Your task to perform on an android device: change the clock style Image 0: 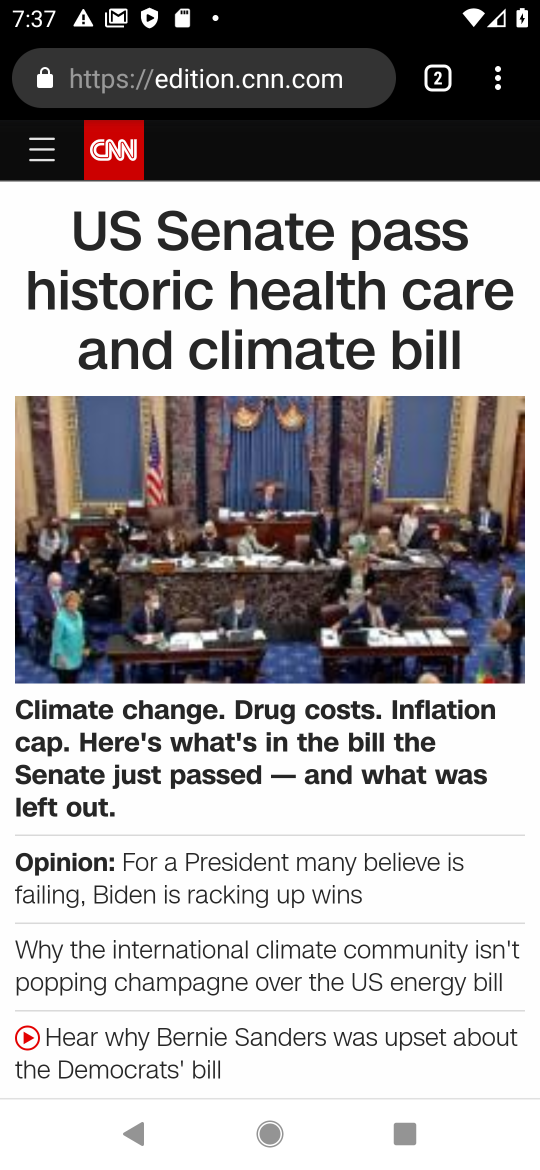
Step 0: press home button
Your task to perform on an android device: change the clock style Image 1: 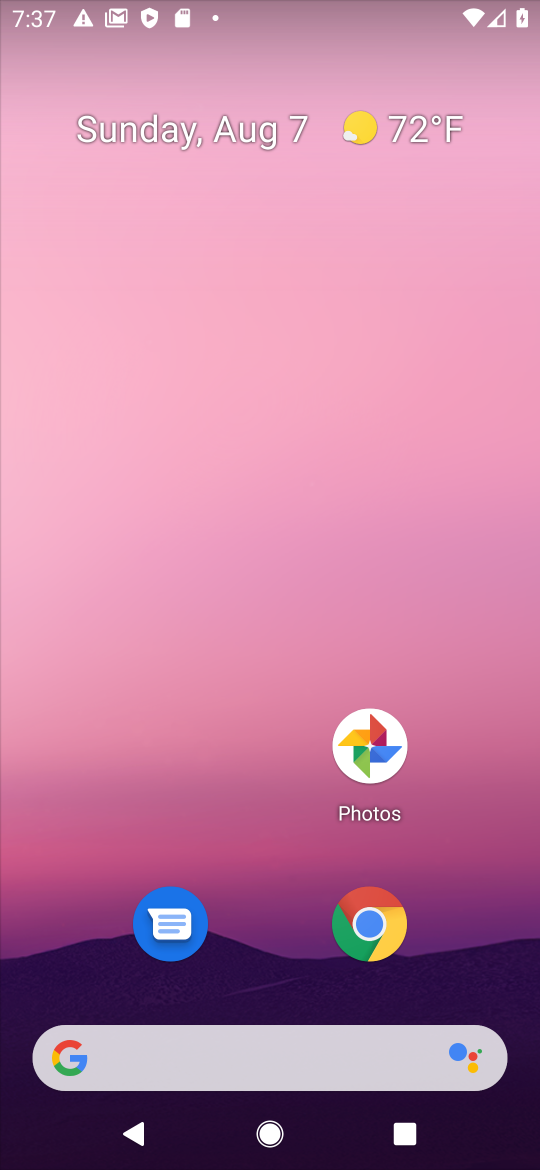
Step 1: drag from (364, 1040) to (277, 2)
Your task to perform on an android device: change the clock style Image 2: 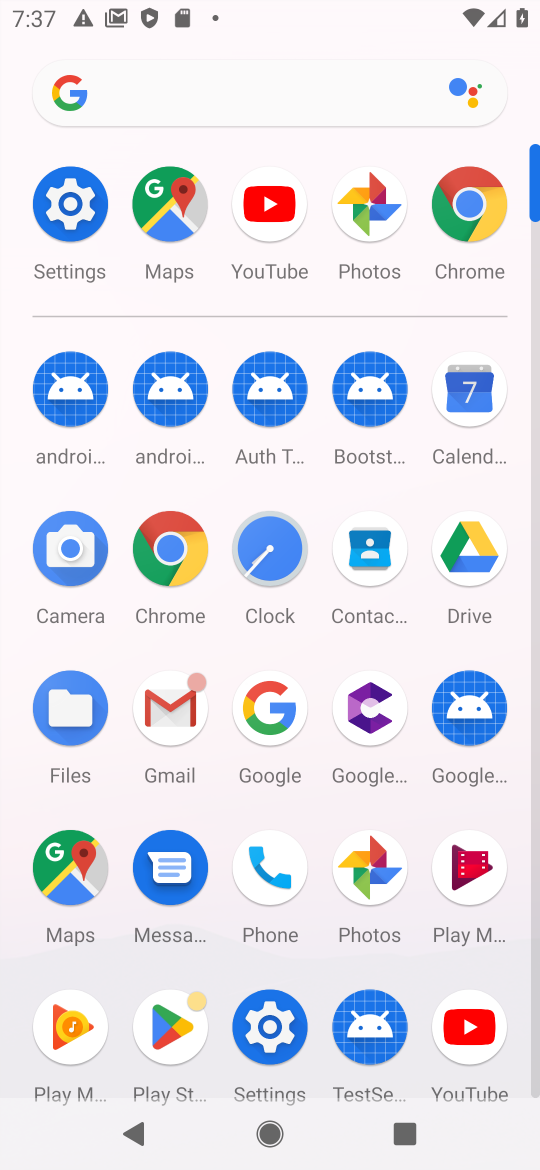
Step 2: click (281, 566)
Your task to perform on an android device: change the clock style Image 3: 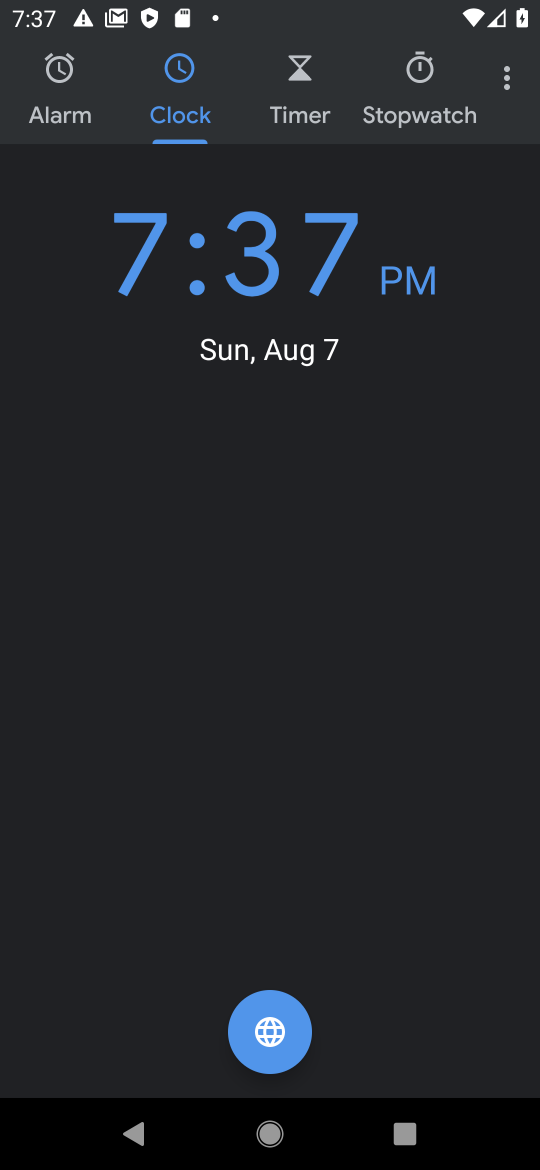
Step 3: click (504, 98)
Your task to perform on an android device: change the clock style Image 4: 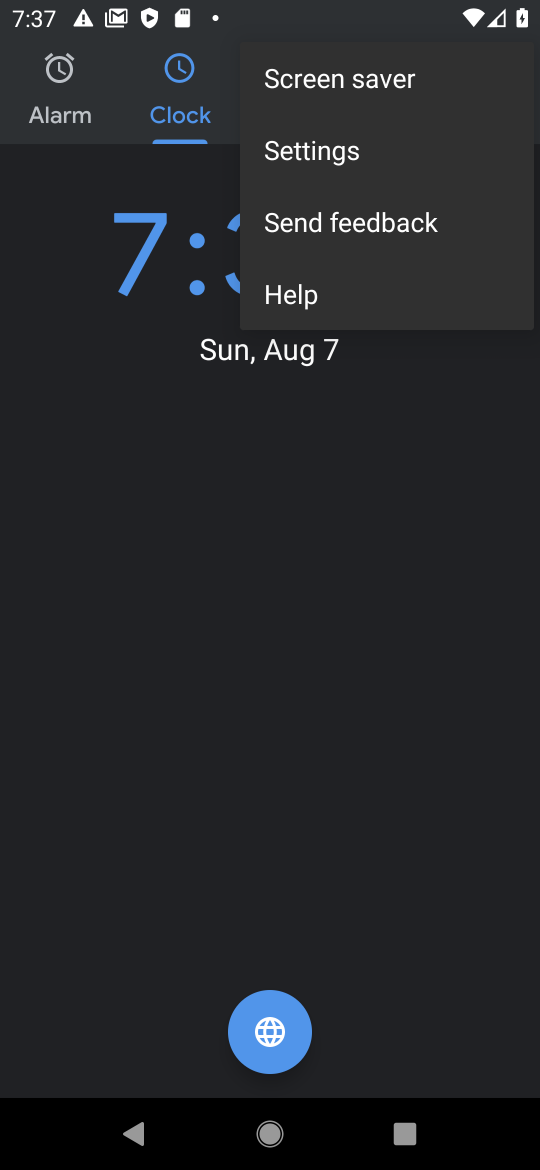
Step 4: click (345, 164)
Your task to perform on an android device: change the clock style Image 5: 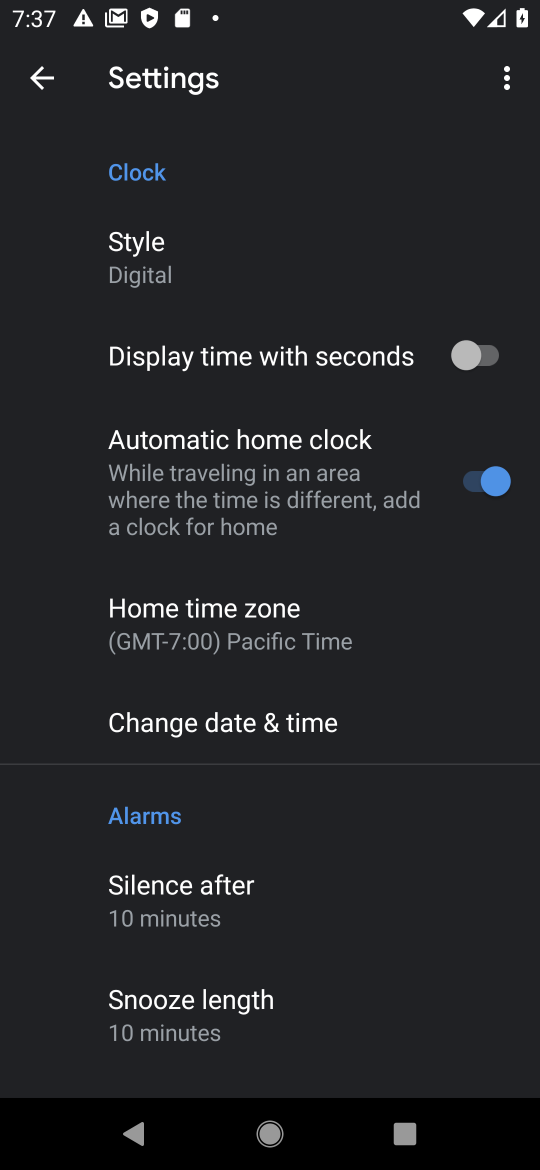
Step 5: click (188, 237)
Your task to perform on an android device: change the clock style Image 6: 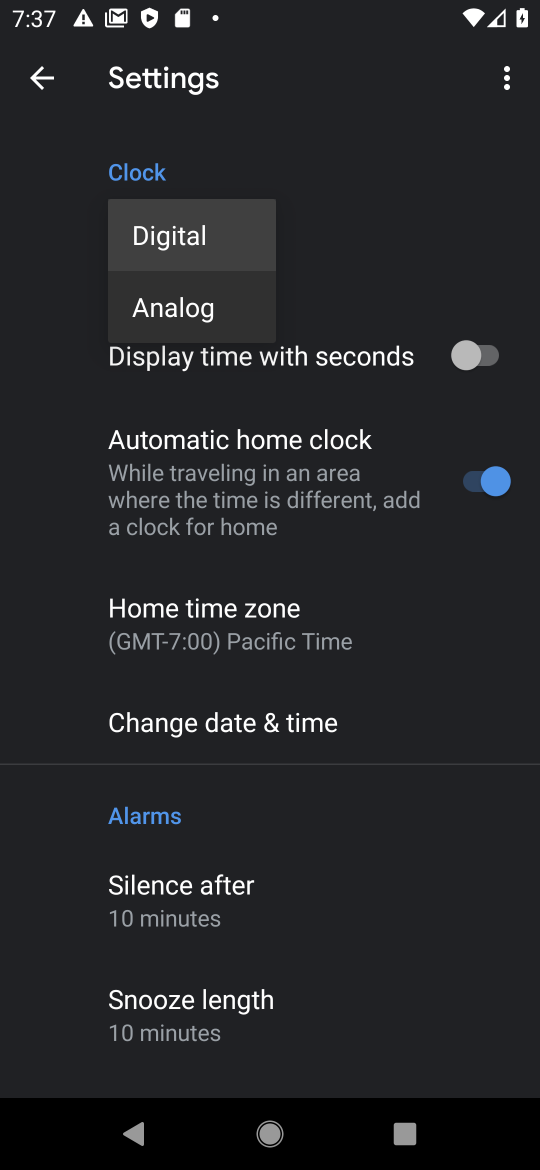
Step 6: click (197, 309)
Your task to perform on an android device: change the clock style Image 7: 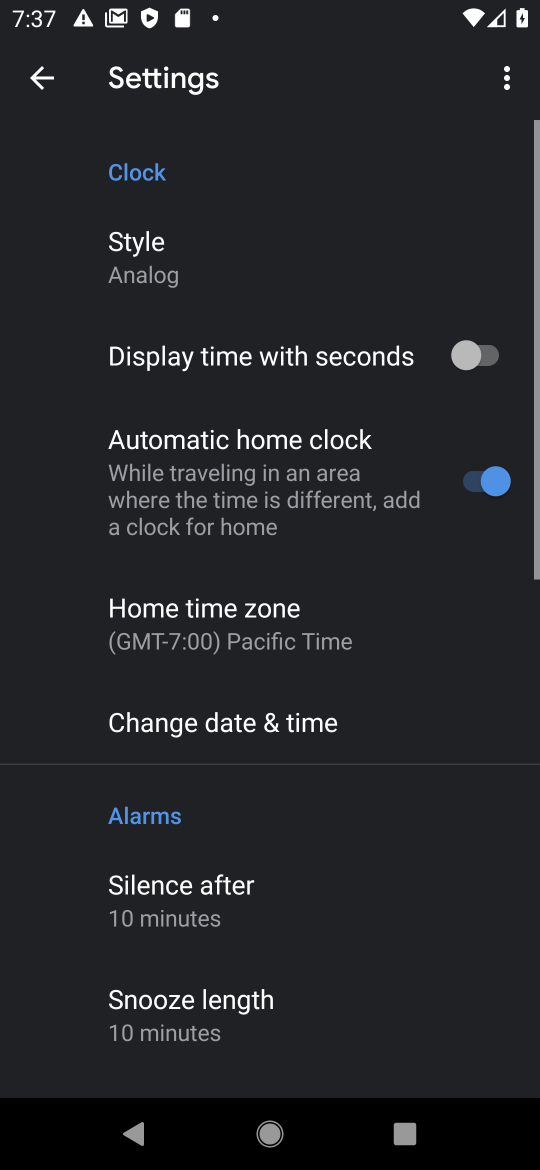
Step 7: task complete